Your task to perform on an android device: Open network settings Image 0: 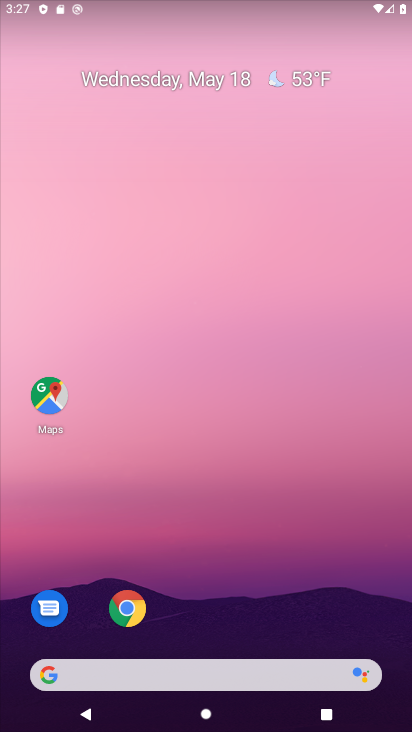
Step 0: drag from (281, 679) to (239, 69)
Your task to perform on an android device: Open network settings Image 1: 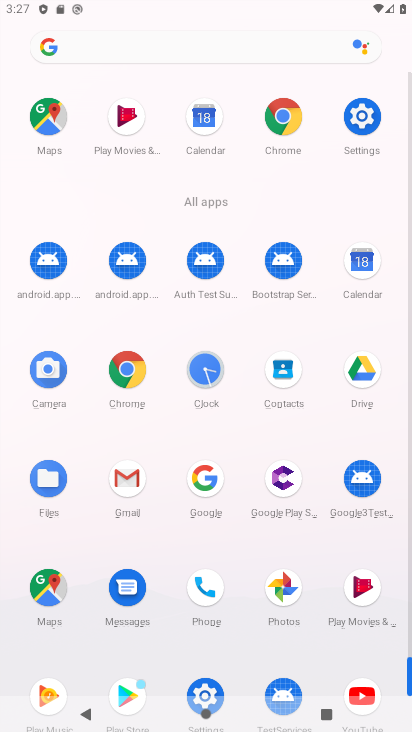
Step 1: click (363, 127)
Your task to perform on an android device: Open network settings Image 2: 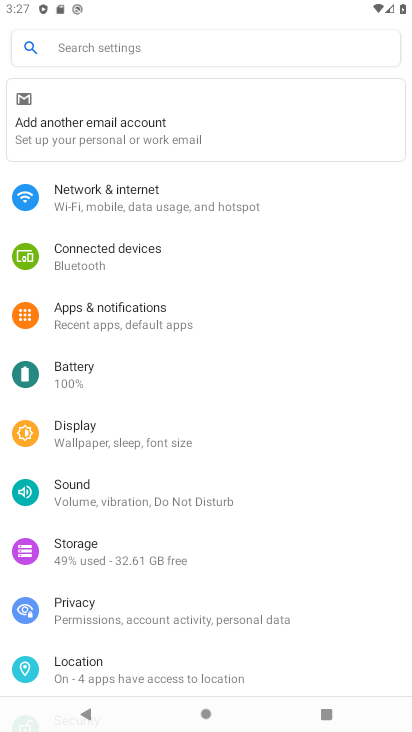
Step 2: click (166, 212)
Your task to perform on an android device: Open network settings Image 3: 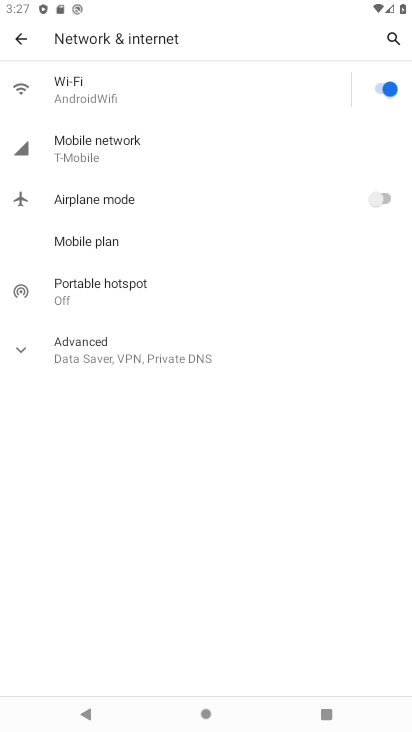
Step 3: click (147, 154)
Your task to perform on an android device: Open network settings Image 4: 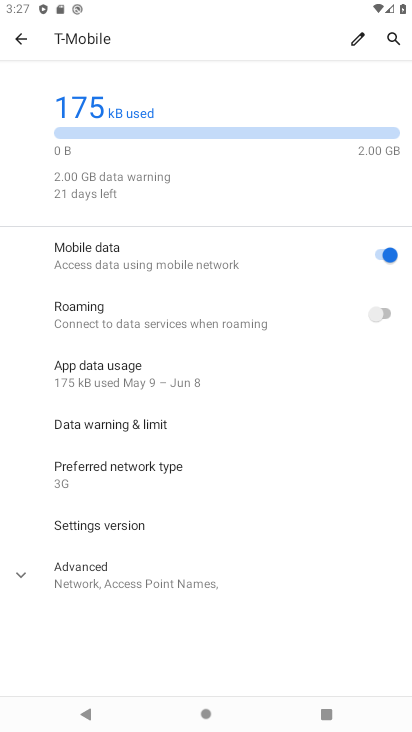
Step 4: task complete